Your task to perform on an android device: turn notification dots off Image 0: 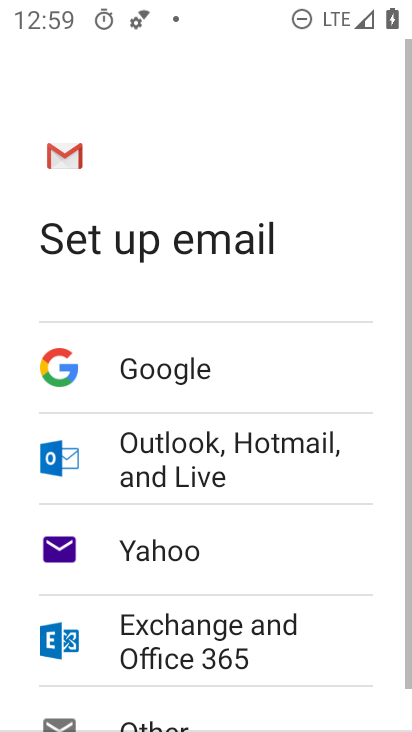
Step 0: press home button
Your task to perform on an android device: turn notification dots off Image 1: 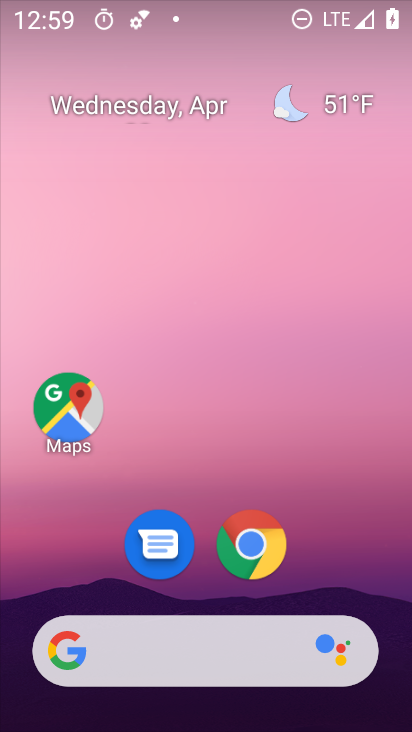
Step 1: drag from (336, 547) to (346, 98)
Your task to perform on an android device: turn notification dots off Image 2: 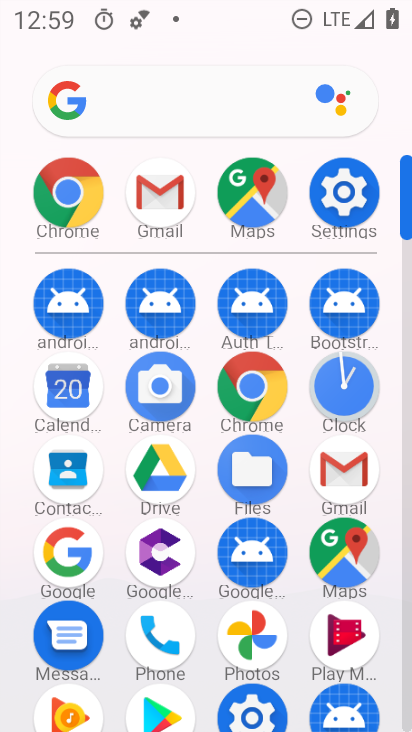
Step 2: click (347, 193)
Your task to perform on an android device: turn notification dots off Image 3: 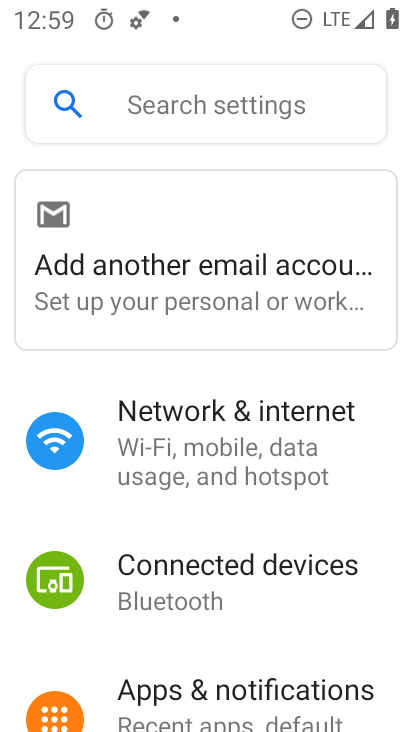
Step 3: drag from (376, 605) to (379, 411)
Your task to perform on an android device: turn notification dots off Image 4: 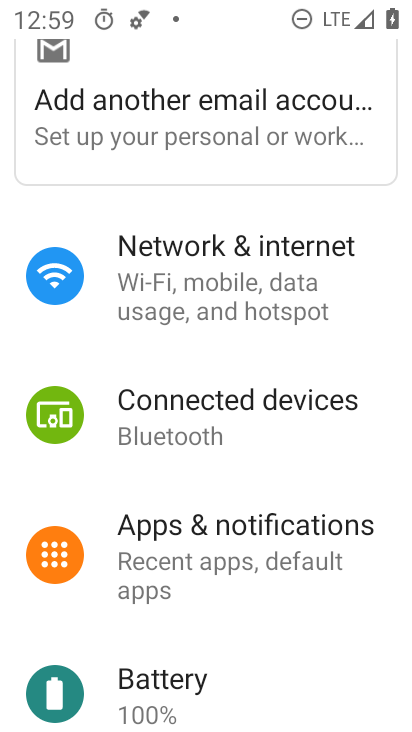
Step 4: drag from (376, 652) to (369, 406)
Your task to perform on an android device: turn notification dots off Image 5: 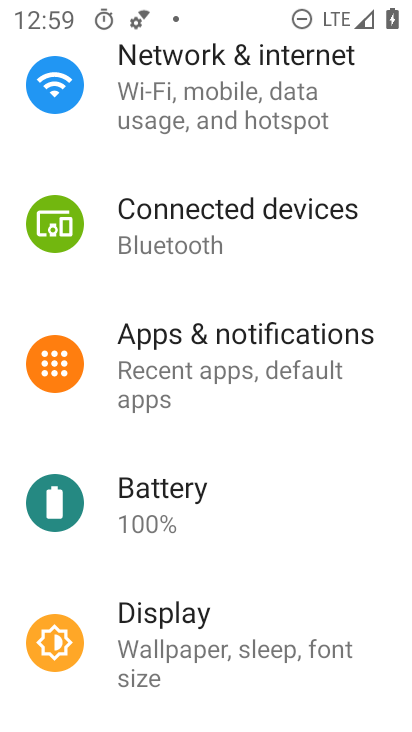
Step 5: drag from (374, 645) to (375, 411)
Your task to perform on an android device: turn notification dots off Image 6: 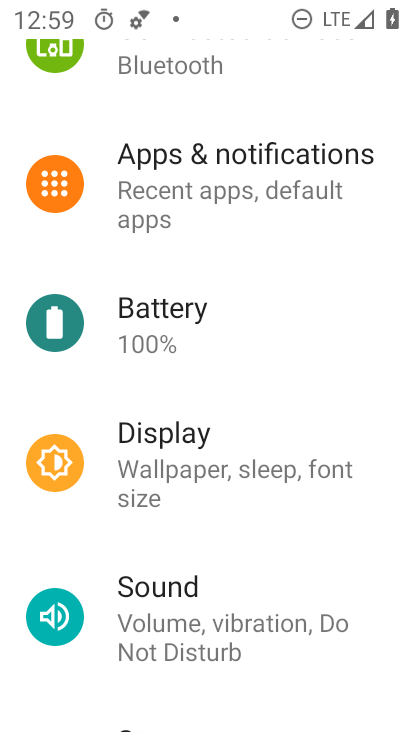
Step 6: drag from (369, 630) to (383, 427)
Your task to perform on an android device: turn notification dots off Image 7: 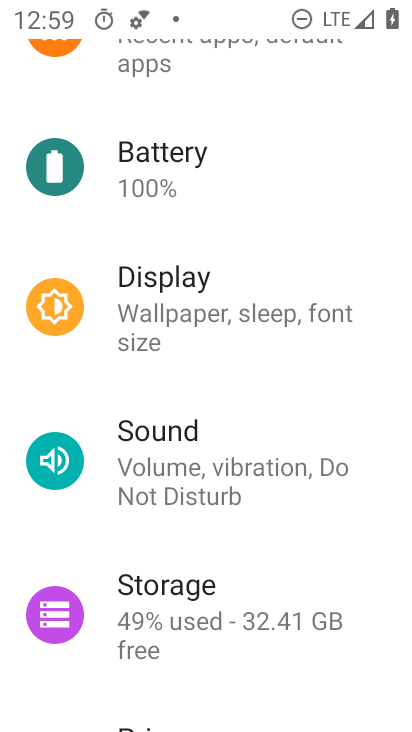
Step 7: drag from (371, 637) to (382, 437)
Your task to perform on an android device: turn notification dots off Image 8: 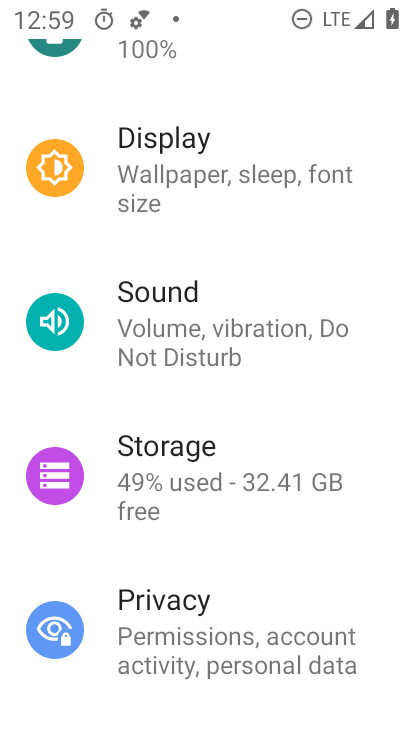
Step 8: drag from (370, 651) to (367, 465)
Your task to perform on an android device: turn notification dots off Image 9: 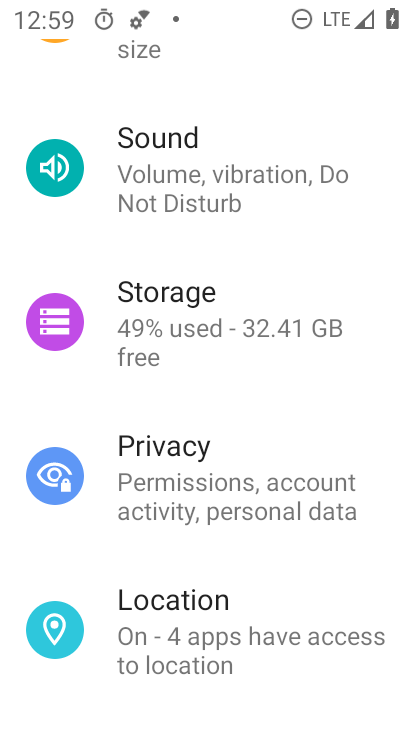
Step 9: drag from (369, 682) to (392, 490)
Your task to perform on an android device: turn notification dots off Image 10: 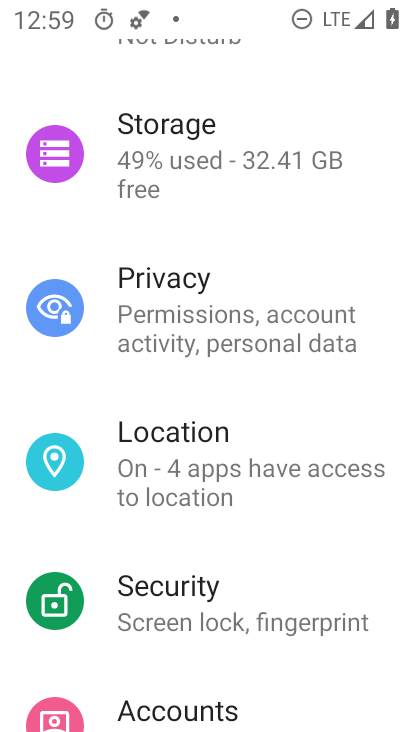
Step 10: drag from (368, 673) to (377, 514)
Your task to perform on an android device: turn notification dots off Image 11: 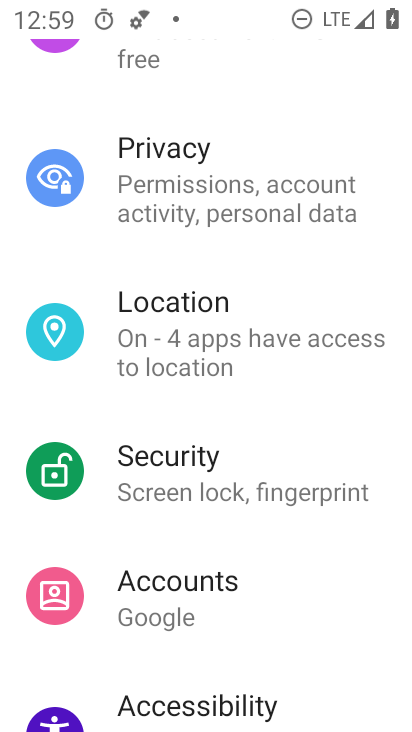
Step 11: drag from (345, 648) to (363, 455)
Your task to perform on an android device: turn notification dots off Image 12: 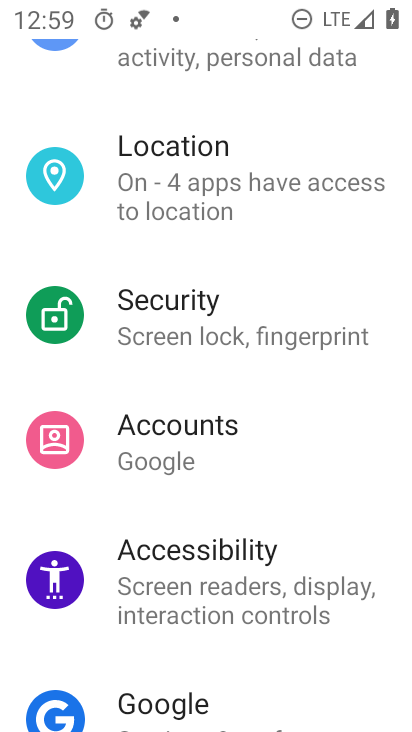
Step 12: drag from (386, 401) to (388, 519)
Your task to perform on an android device: turn notification dots off Image 13: 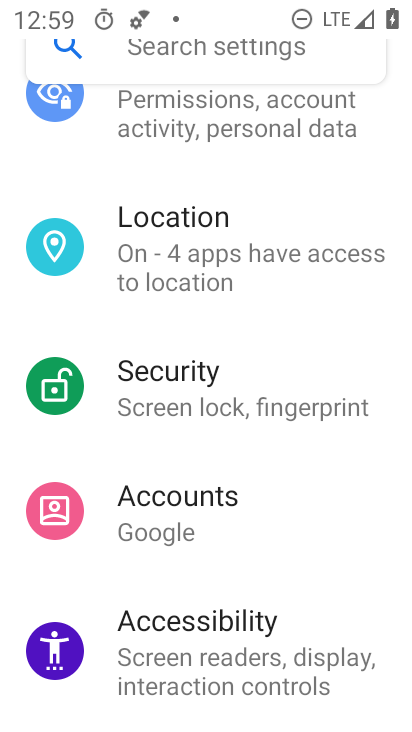
Step 13: drag from (378, 336) to (369, 519)
Your task to perform on an android device: turn notification dots off Image 14: 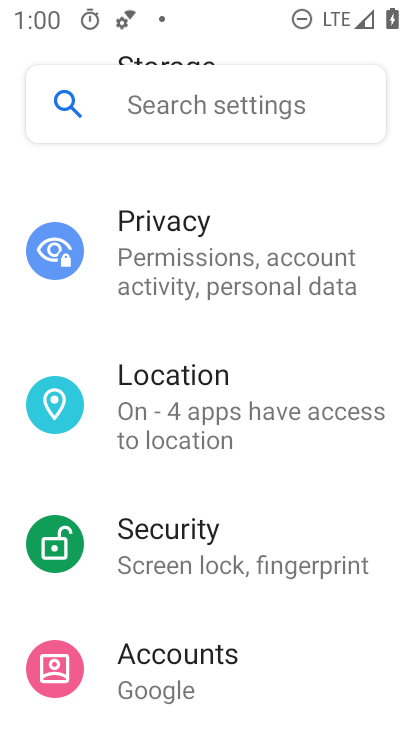
Step 14: drag from (380, 320) to (353, 487)
Your task to perform on an android device: turn notification dots off Image 15: 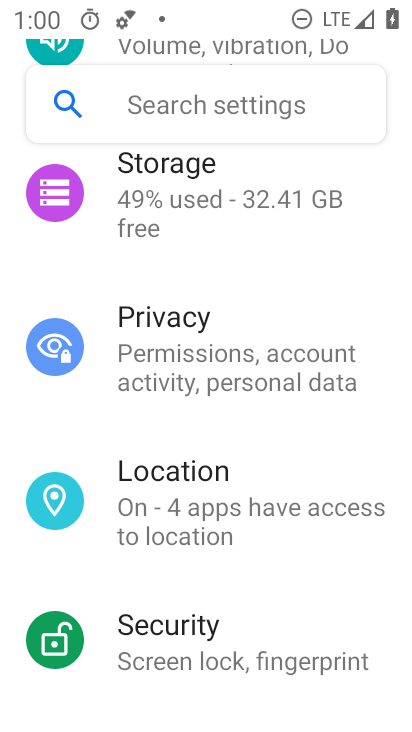
Step 15: drag from (374, 284) to (374, 435)
Your task to perform on an android device: turn notification dots off Image 16: 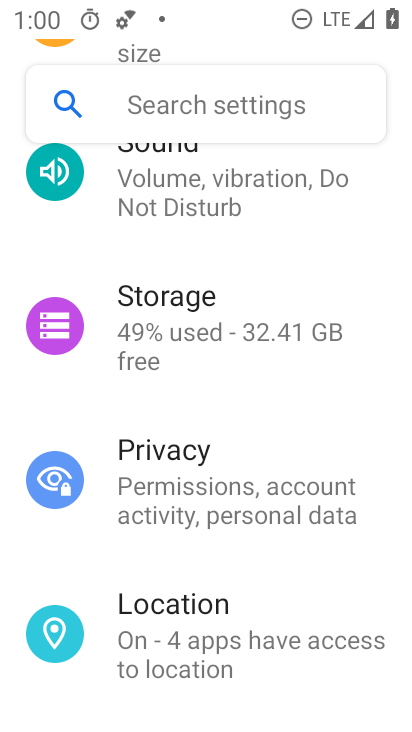
Step 16: drag from (386, 275) to (383, 437)
Your task to perform on an android device: turn notification dots off Image 17: 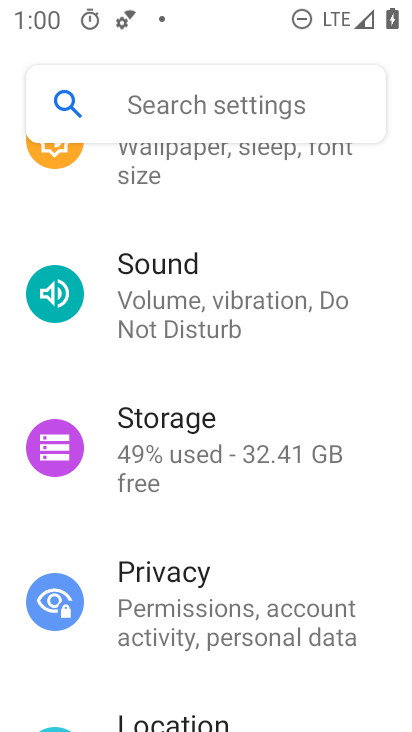
Step 17: drag from (376, 239) to (367, 423)
Your task to perform on an android device: turn notification dots off Image 18: 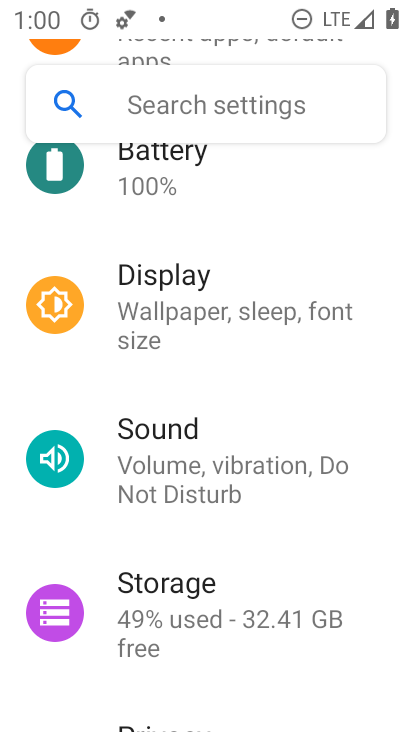
Step 18: drag from (378, 223) to (369, 424)
Your task to perform on an android device: turn notification dots off Image 19: 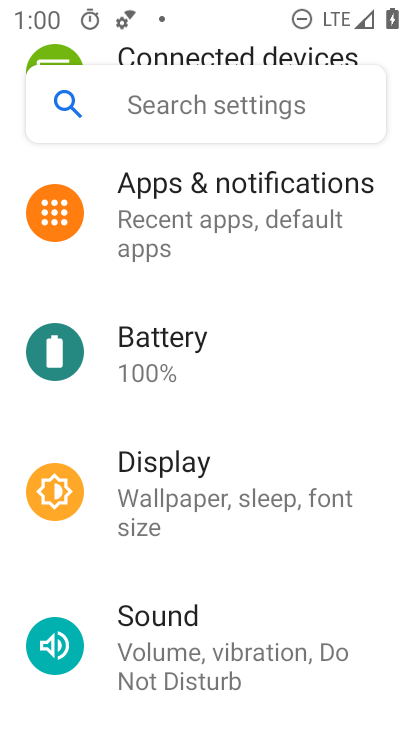
Step 19: click (304, 204)
Your task to perform on an android device: turn notification dots off Image 20: 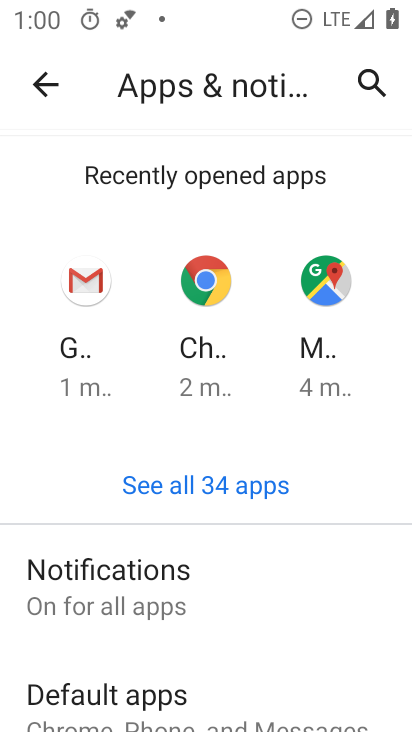
Step 20: click (171, 588)
Your task to perform on an android device: turn notification dots off Image 21: 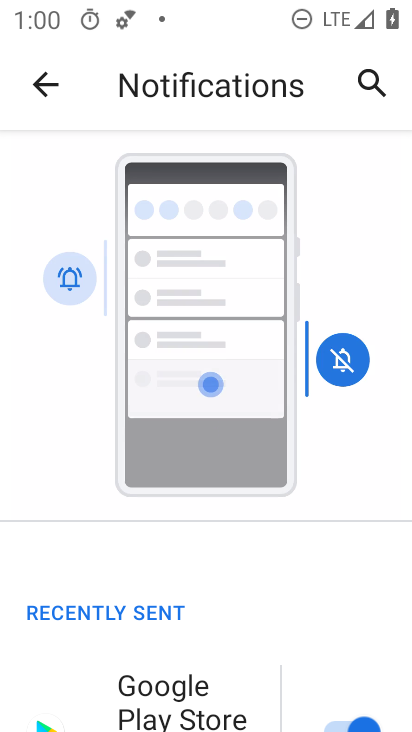
Step 21: drag from (310, 595) to (338, 348)
Your task to perform on an android device: turn notification dots off Image 22: 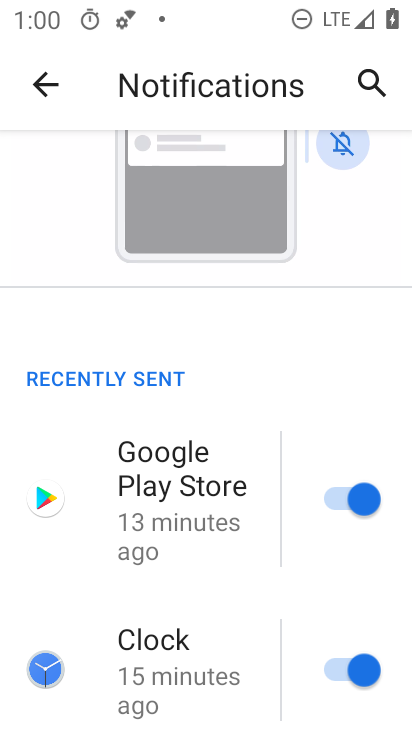
Step 22: drag from (298, 608) to (307, 424)
Your task to perform on an android device: turn notification dots off Image 23: 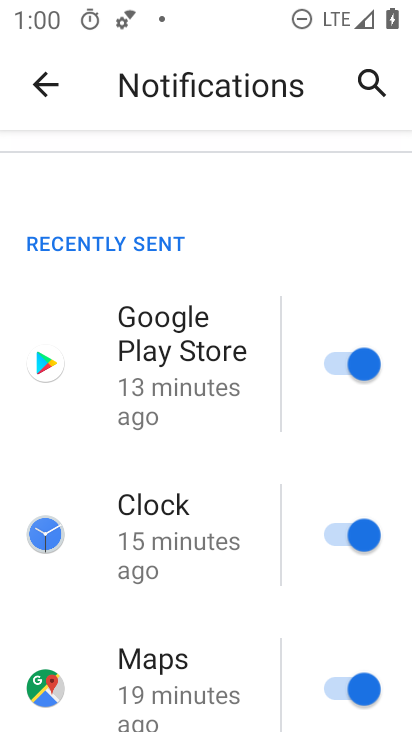
Step 23: drag from (261, 624) to (266, 411)
Your task to perform on an android device: turn notification dots off Image 24: 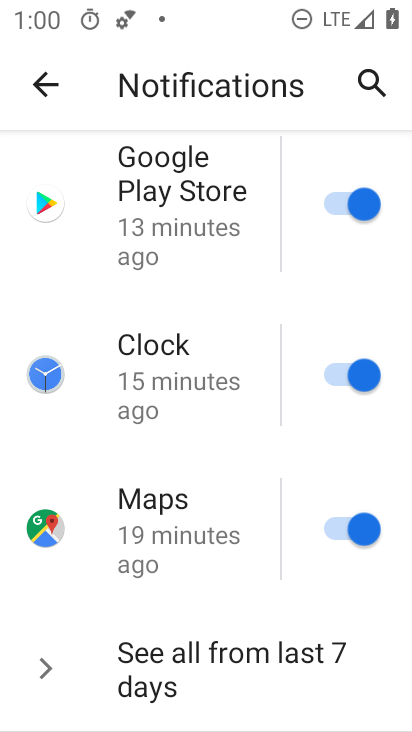
Step 24: drag from (246, 609) to (252, 355)
Your task to perform on an android device: turn notification dots off Image 25: 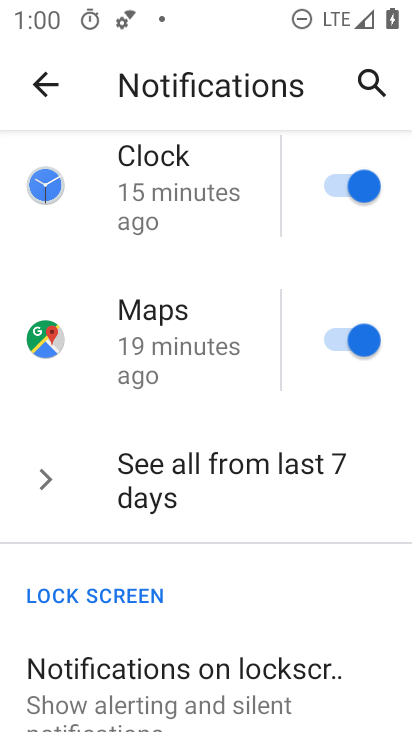
Step 25: drag from (276, 520) to (266, 305)
Your task to perform on an android device: turn notification dots off Image 26: 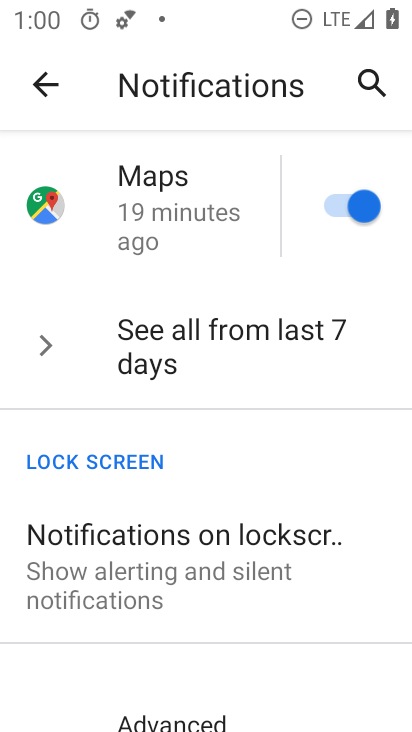
Step 26: drag from (288, 608) to (299, 426)
Your task to perform on an android device: turn notification dots off Image 27: 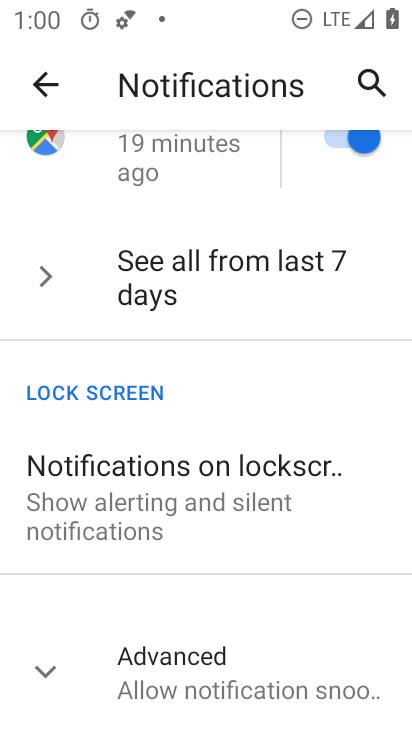
Step 27: click (159, 662)
Your task to perform on an android device: turn notification dots off Image 28: 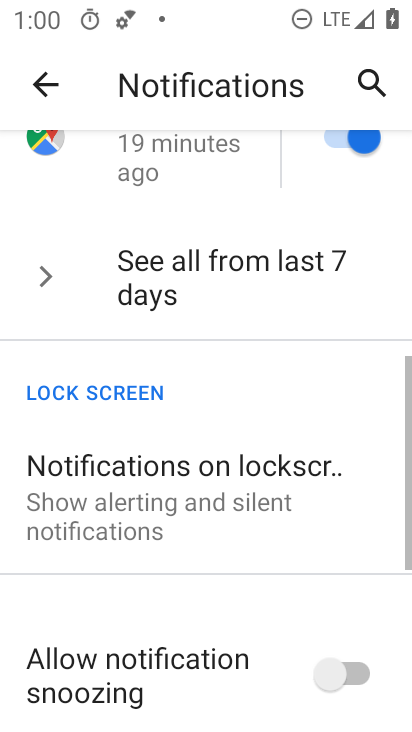
Step 28: drag from (280, 657) to (310, 378)
Your task to perform on an android device: turn notification dots off Image 29: 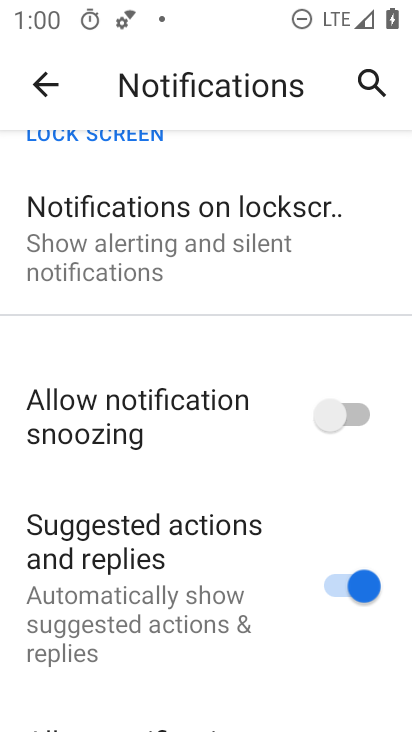
Step 29: drag from (263, 626) to (290, 375)
Your task to perform on an android device: turn notification dots off Image 30: 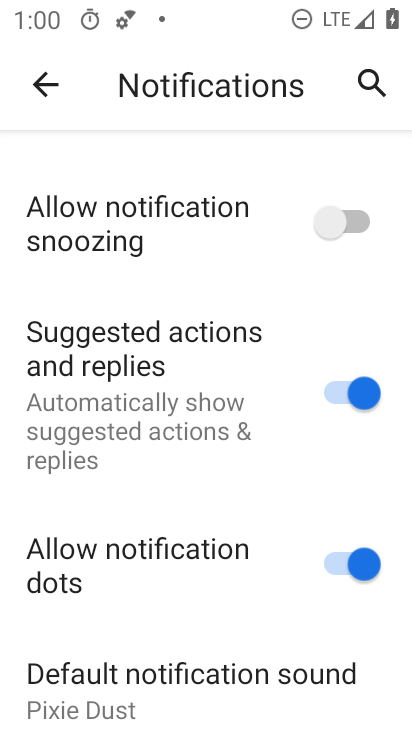
Step 30: click (376, 554)
Your task to perform on an android device: turn notification dots off Image 31: 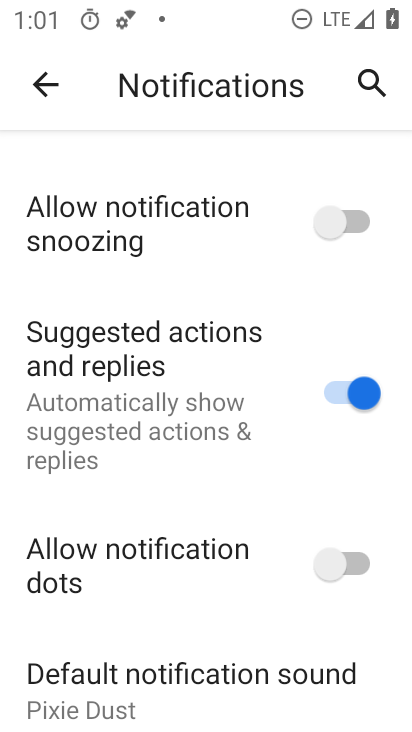
Step 31: task complete